Your task to perform on an android device: Do I have any events this weekend? Image 0: 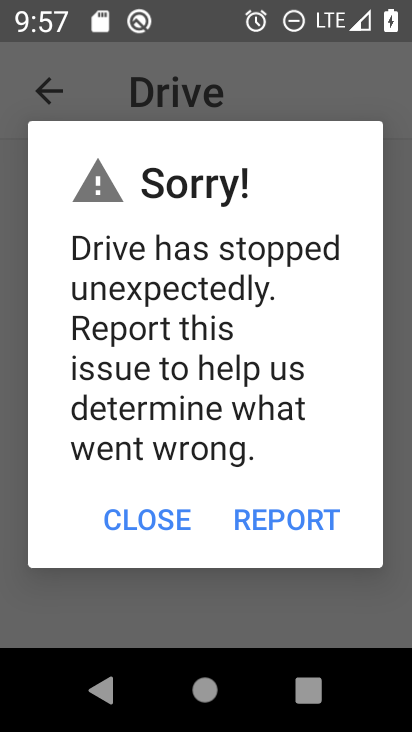
Step 0: press home button
Your task to perform on an android device: Do I have any events this weekend? Image 1: 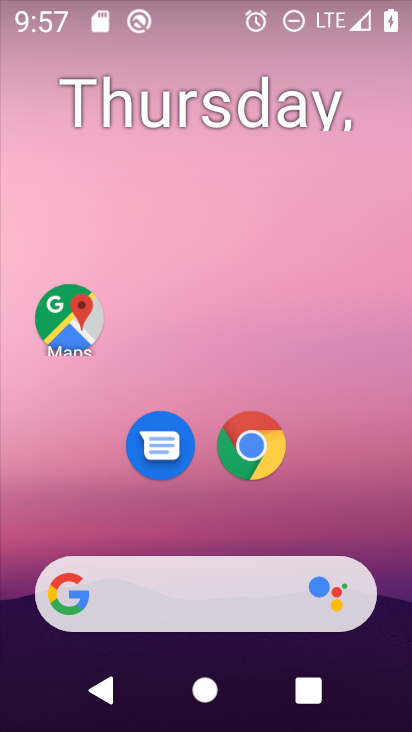
Step 1: drag from (387, 641) to (399, 79)
Your task to perform on an android device: Do I have any events this weekend? Image 2: 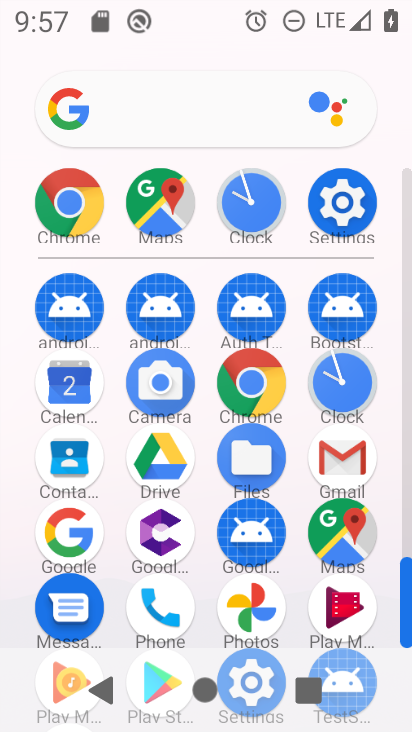
Step 2: click (60, 402)
Your task to perform on an android device: Do I have any events this weekend? Image 3: 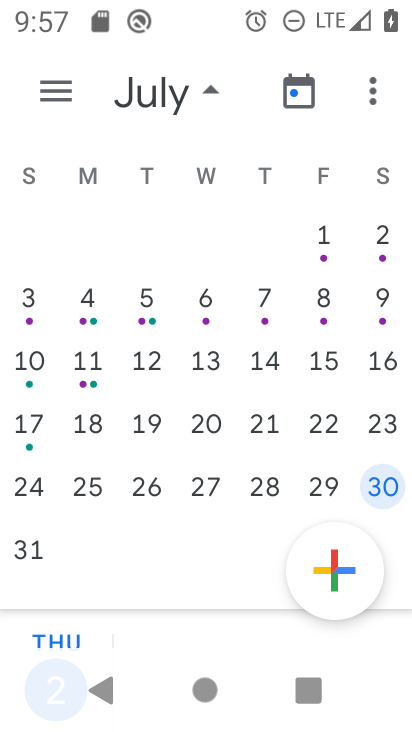
Step 3: task complete